Your task to perform on an android device: open app "Adobe Acrobat Reader" (install if not already installed) and enter user name: "nondescriptly@inbox.com" and password: "negating" Image 0: 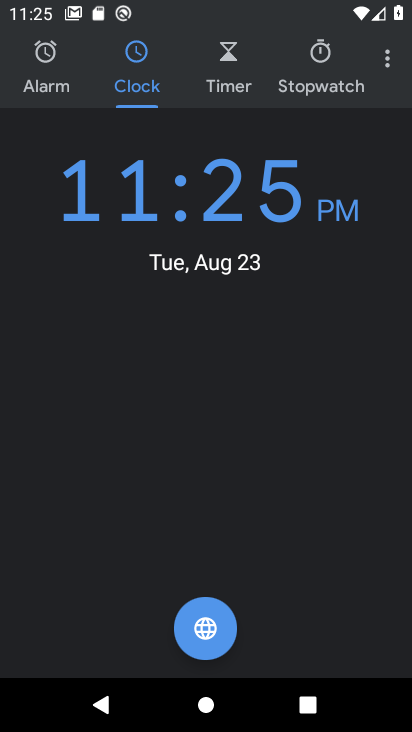
Step 0: press home button
Your task to perform on an android device: open app "Adobe Acrobat Reader" (install if not already installed) and enter user name: "nondescriptly@inbox.com" and password: "negating" Image 1: 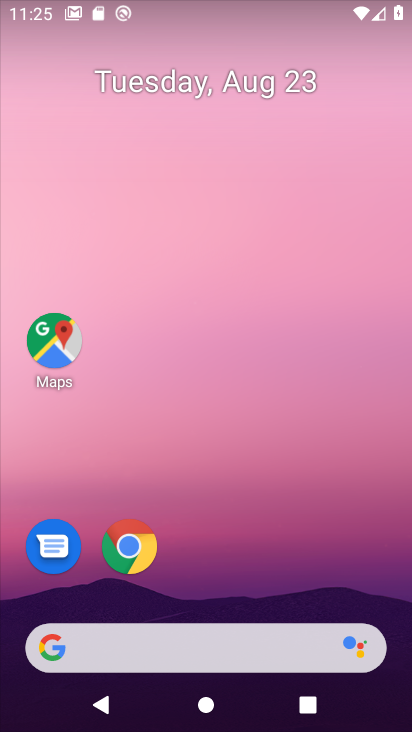
Step 1: drag from (242, 594) to (235, 233)
Your task to perform on an android device: open app "Adobe Acrobat Reader" (install if not already installed) and enter user name: "nondescriptly@inbox.com" and password: "negating" Image 2: 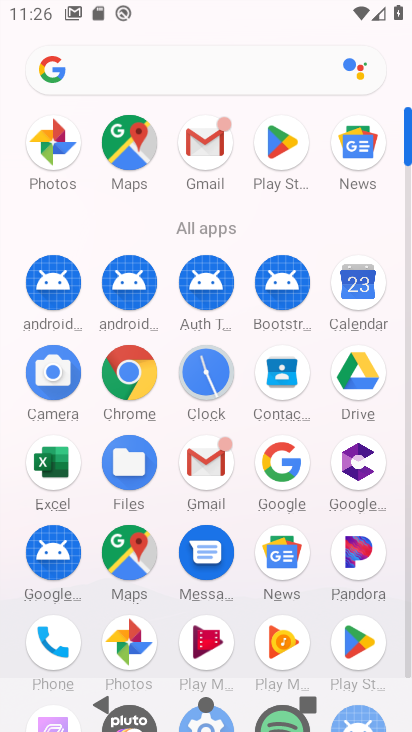
Step 2: click (266, 153)
Your task to perform on an android device: open app "Adobe Acrobat Reader" (install if not already installed) and enter user name: "nondescriptly@inbox.com" and password: "negating" Image 3: 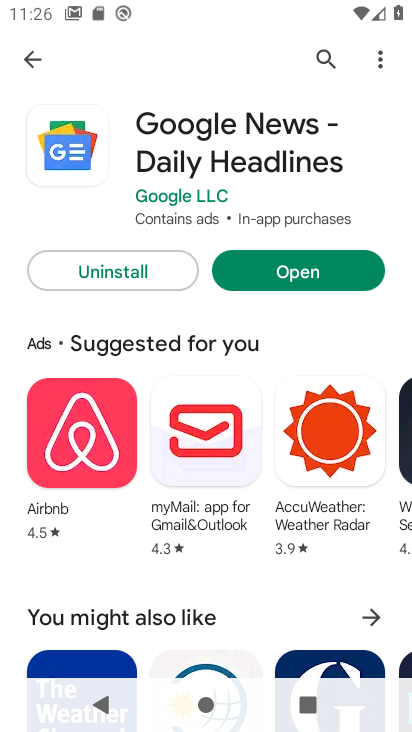
Step 3: click (31, 51)
Your task to perform on an android device: open app "Adobe Acrobat Reader" (install if not already installed) and enter user name: "nondescriptly@inbox.com" and password: "negating" Image 4: 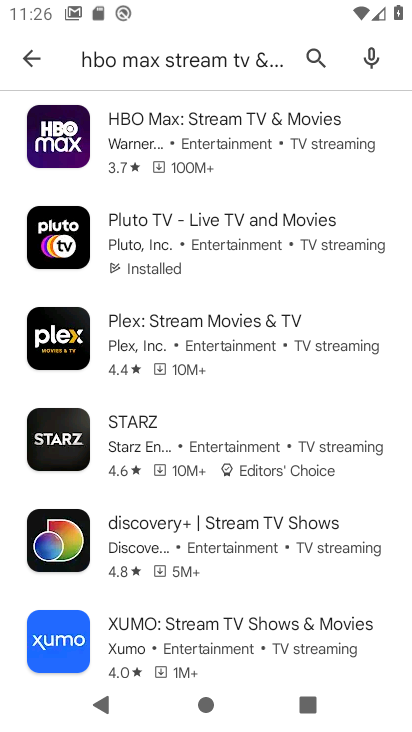
Step 4: click (308, 55)
Your task to perform on an android device: open app "Adobe Acrobat Reader" (install if not already installed) and enter user name: "nondescriptly@inbox.com" and password: "negating" Image 5: 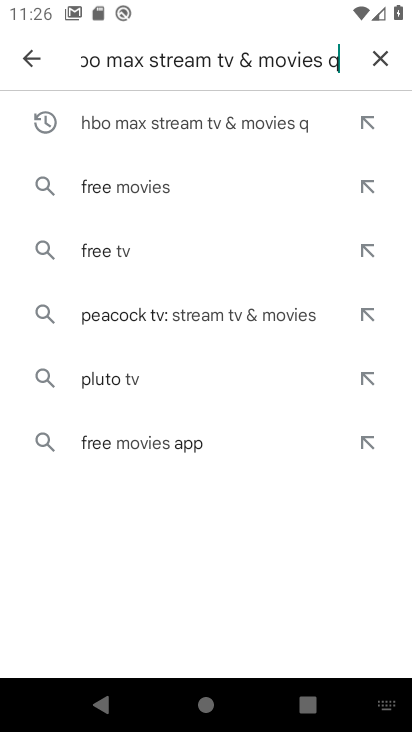
Step 5: click (370, 51)
Your task to perform on an android device: open app "Adobe Acrobat Reader" (install if not already installed) and enter user name: "nondescriptly@inbox.com" and password: "negating" Image 6: 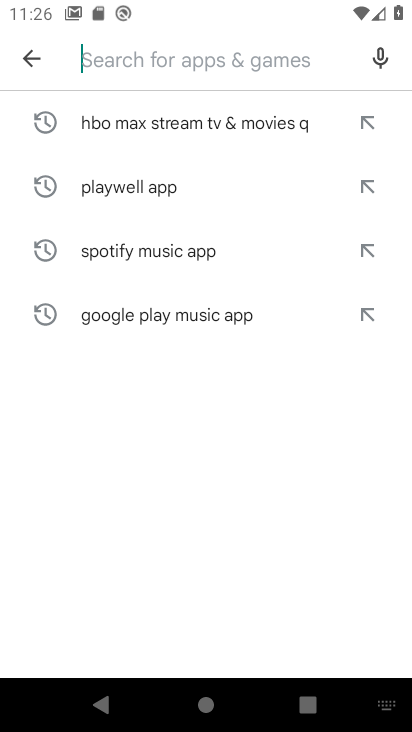
Step 6: click (199, 53)
Your task to perform on an android device: open app "Adobe Acrobat Reader" (install if not already installed) and enter user name: "nondescriptly@inbox.com" and password: "negating" Image 7: 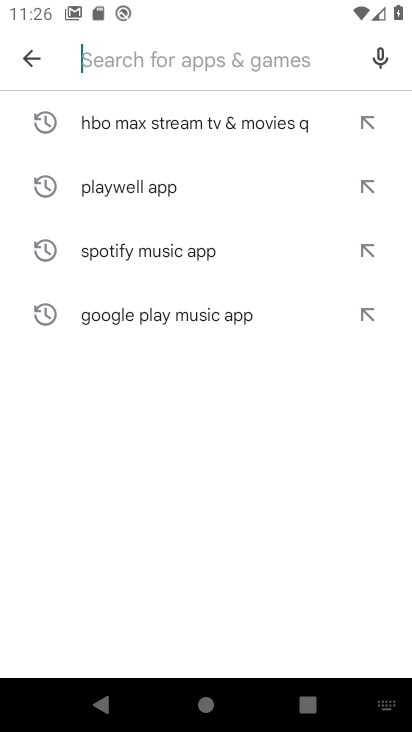
Step 7: type "Adobe Acrobat Reader "
Your task to perform on an android device: open app "Adobe Acrobat Reader" (install if not already installed) and enter user name: "nondescriptly@inbox.com" and password: "negating" Image 8: 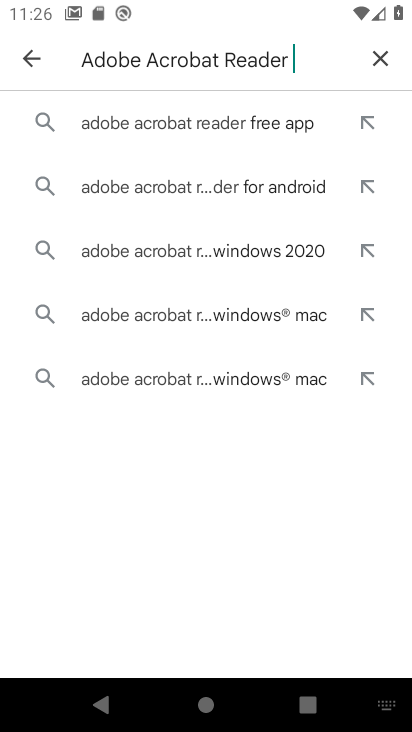
Step 8: click (240, 129)
Your task to perform on an android device: open app "Adobe Acrobat Reader" (install if not already installed) and enter user name: "nondescriptly@inbox.com" and password: "negating" Image 9: 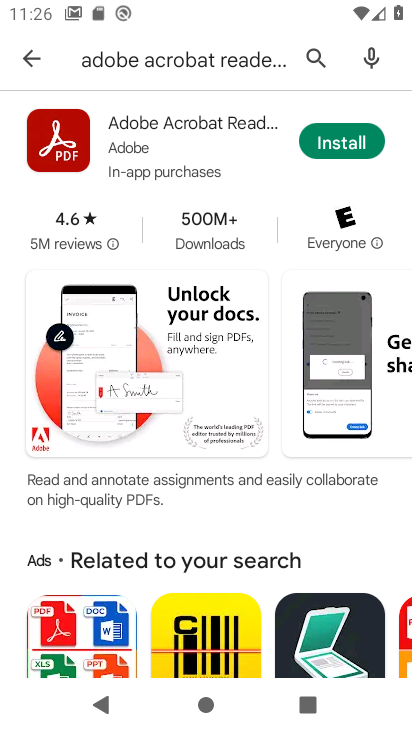
Step 9: click (349, 149)
Your task to perform on an android device: open app "Adobe Acrobat Reader" (install if not already installed) and enter user name: "nondescriptly@inbox.com" and password: "negating" Image 10: 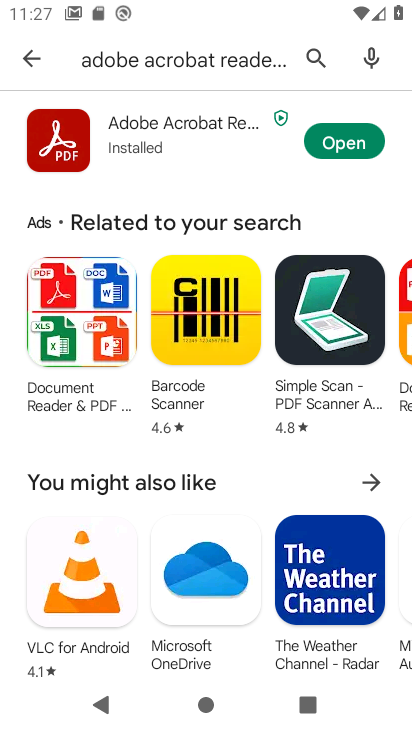
Step 10: click (347, 140)
Your task to perform on an android device: open app "Adobe Acrobat Reader" (install if not already installed) and enter user name: "nondescriptly@inbox.com" and password: "negating" Image 11: 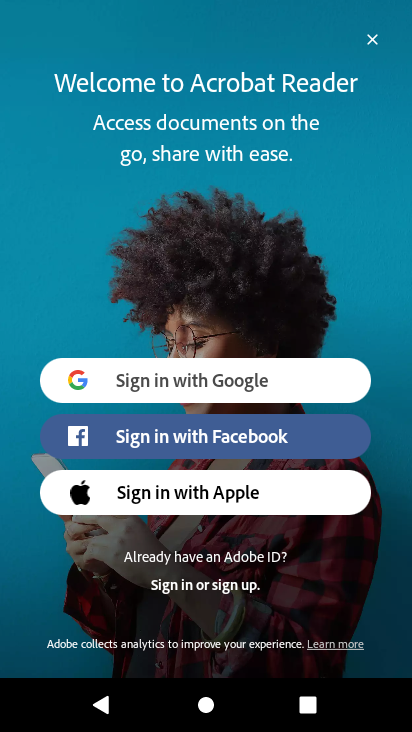
Step 11: task complete